Your task to perform on an android device: open a new tab in the chrome app Image 0: 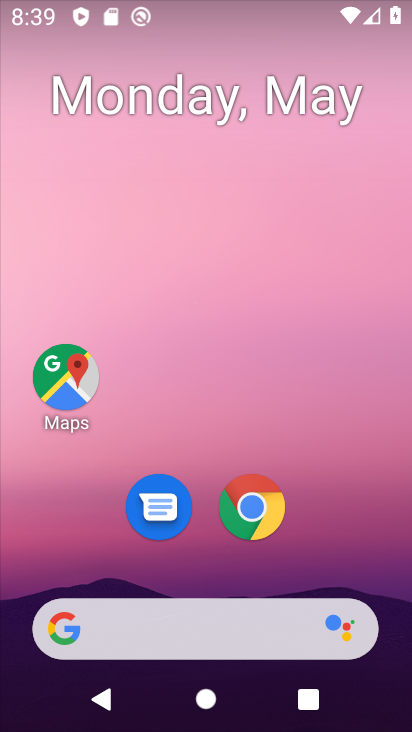
Step 0: click (262, 514)
Your task to perform on an android device: open a new tab in the chrome app Image 1: 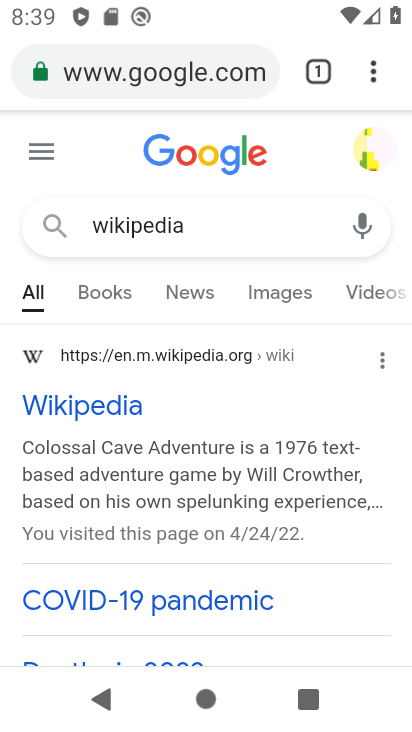
Step 1: click (379, 73)
Your task to perform on an android device: open a new tab in the chrome app Image 2: 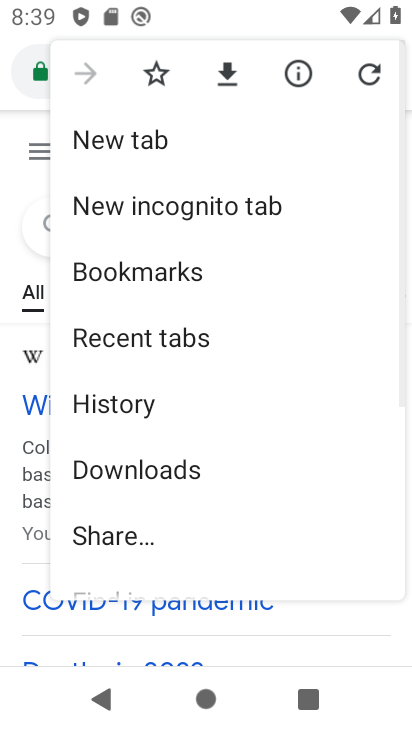
Step 2: click (162, 144)
Your task to perform on an android device: open a new tab in the chrome app Image 3: 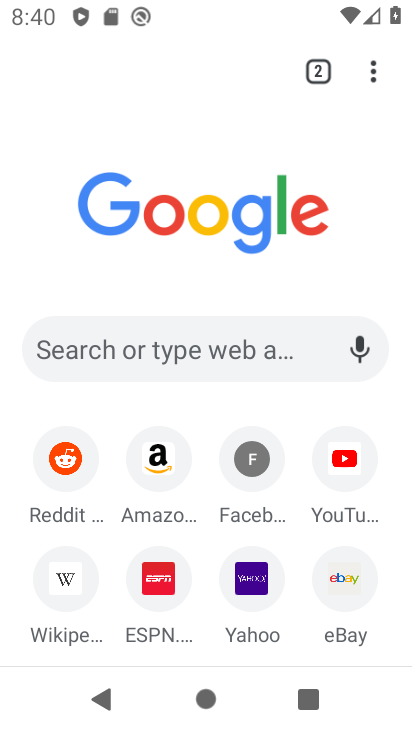
Step 3: task complete